Your task to perform on an android device: Add logitech g pro to the cart on bestbuy.com, then select checkout. Image 0: 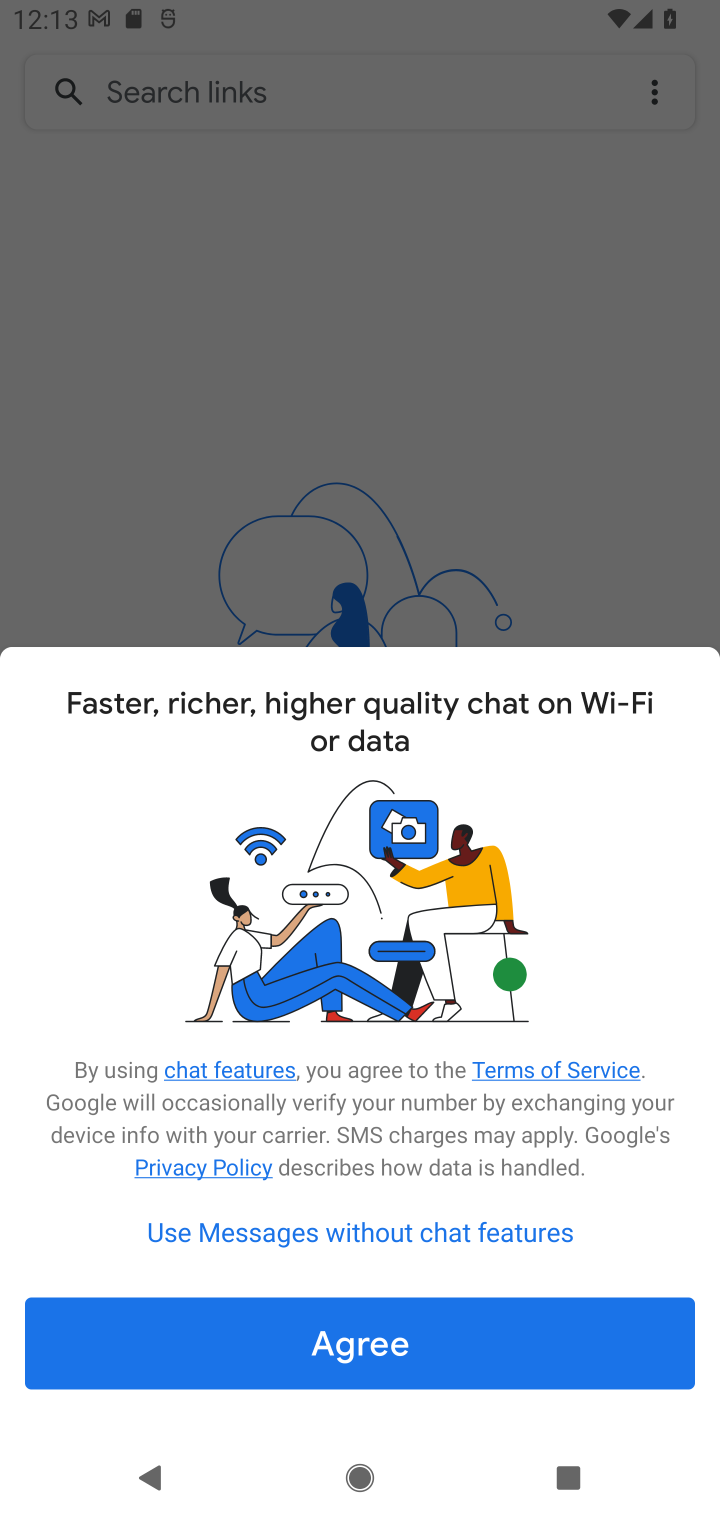
Step 0: press home button
Your task to perform on an android device: Add logitech g pro to the cart on bestbuy.com, then select checkout. Image 1: 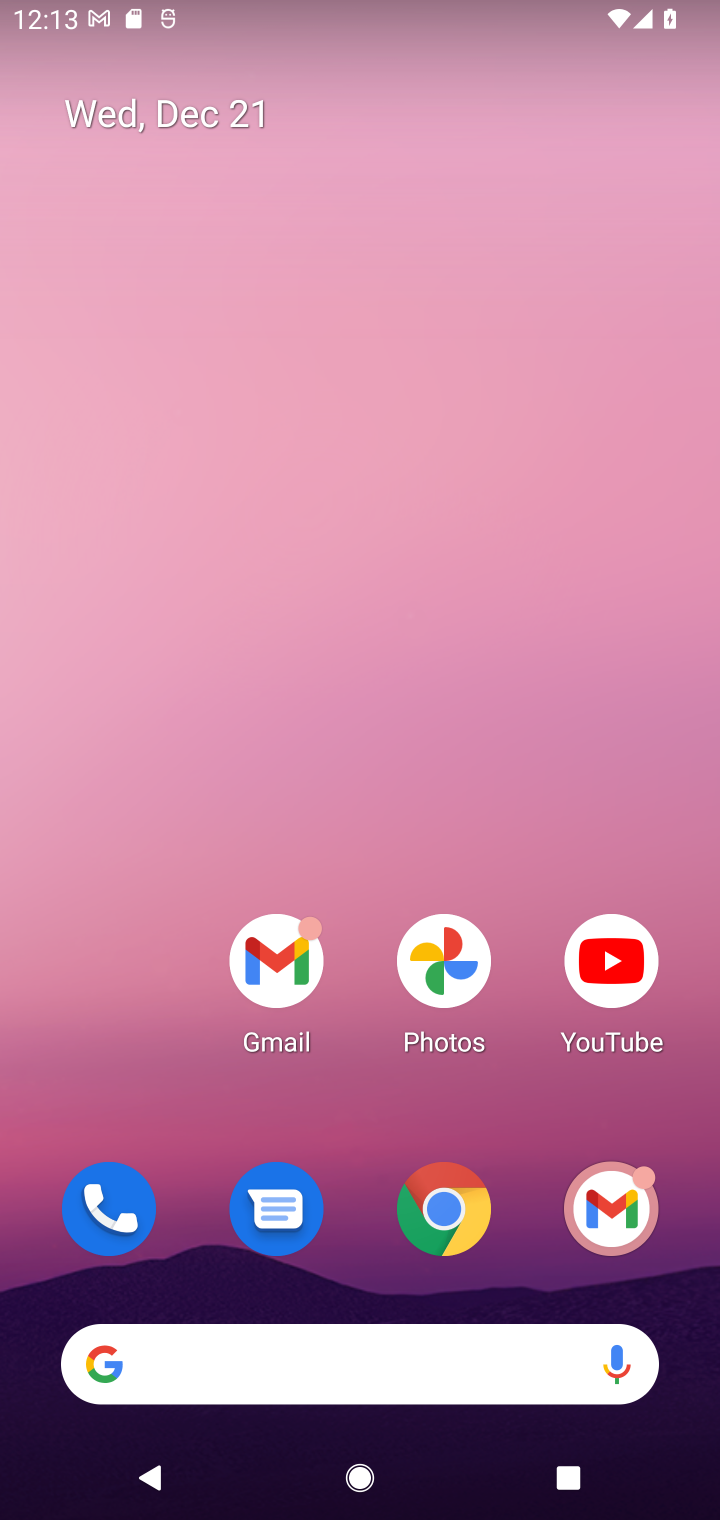
Step 1: click (457, 1213)
Your task to perform on an android device: Add logitech g pro to the cart on bestbuy.com, then select checkout. Image 2: 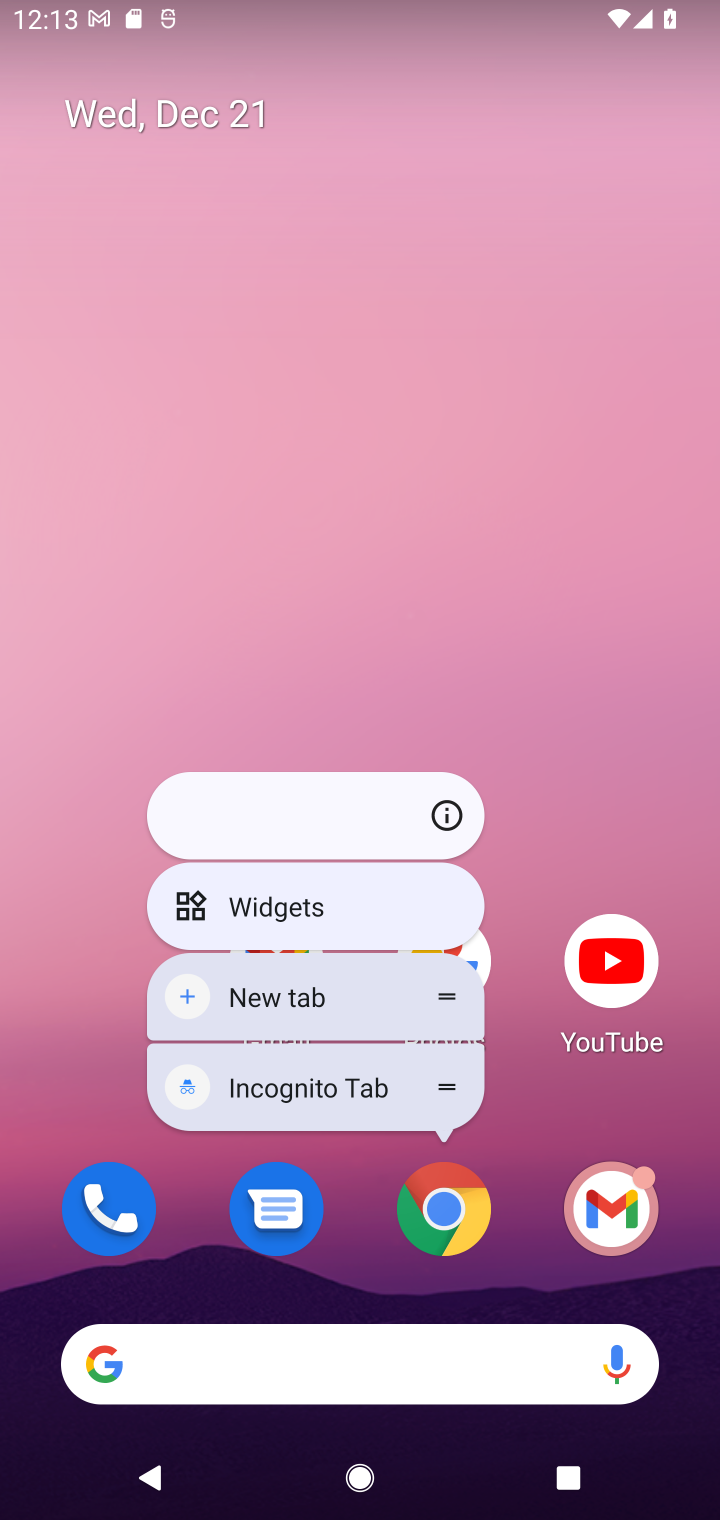
Step 2: click (457, 1213)
Your task to perform on an android device: Add logitech g pro to the cart on bestbuy.com, then select checkout. Image 3: 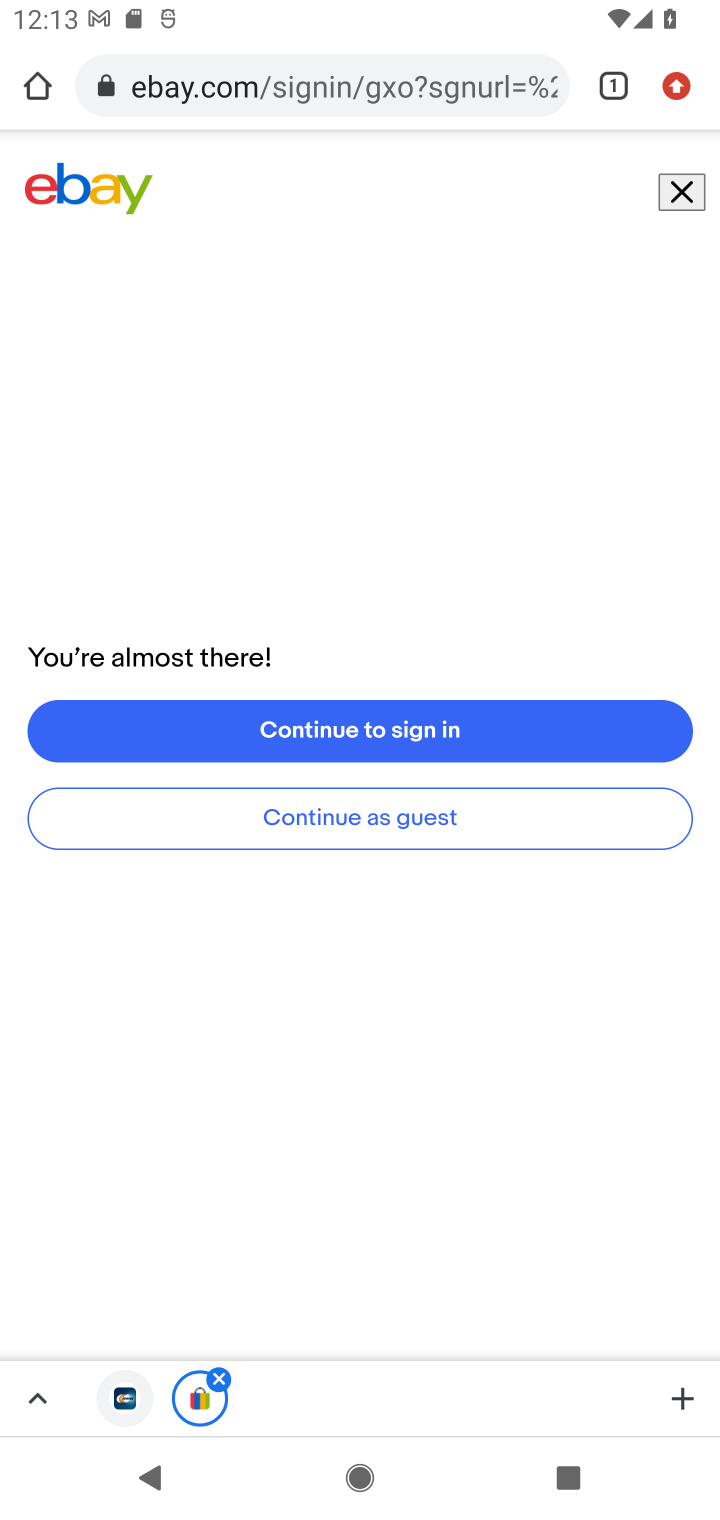
Step 3: click (296, 96)
Your task to perform on an android device: Add logitech g pro to the cart on bestbuy.com, then select checkout. Image 4: 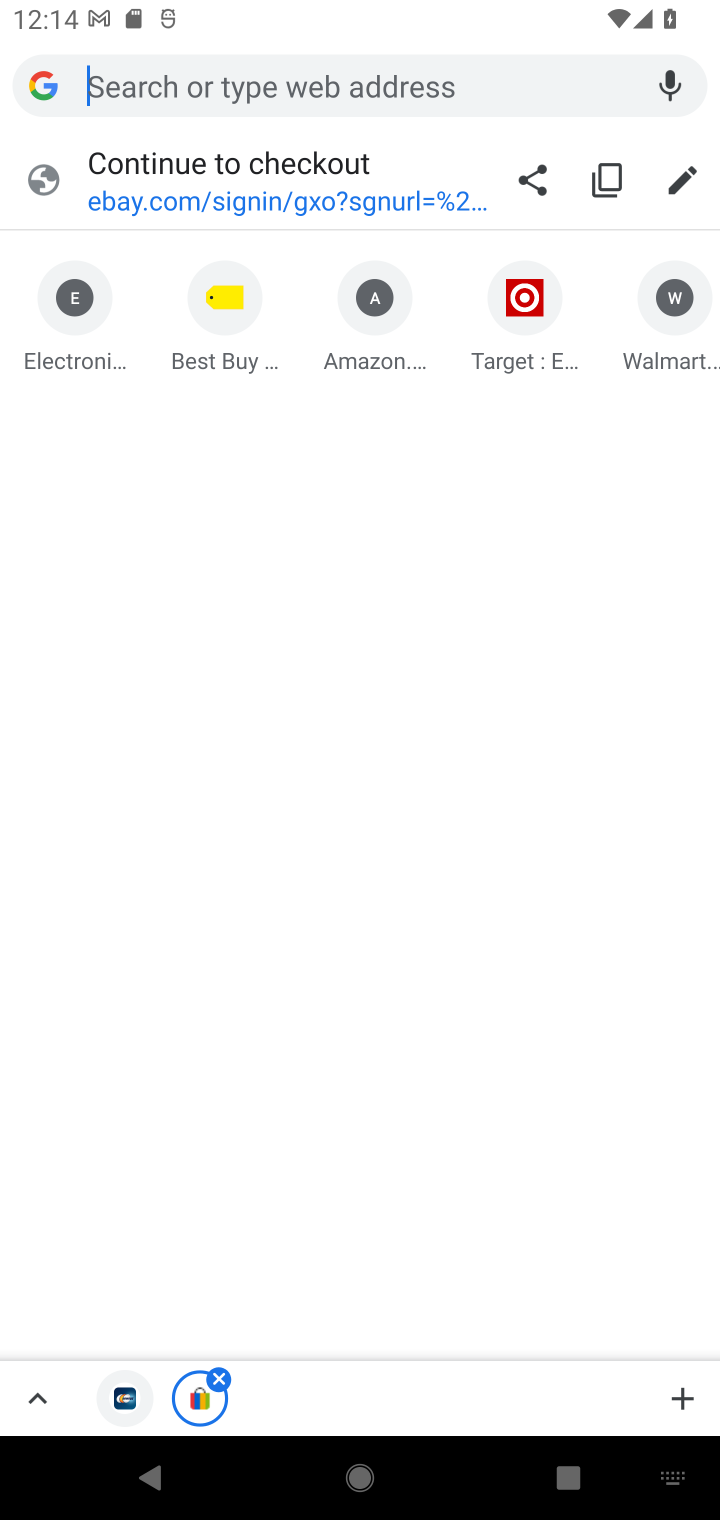
Step 4: click (227, 322)
Your task to perform on an android device: Add logitech g pro to the cart on bestbuy.com, then select checkout. Image 5: 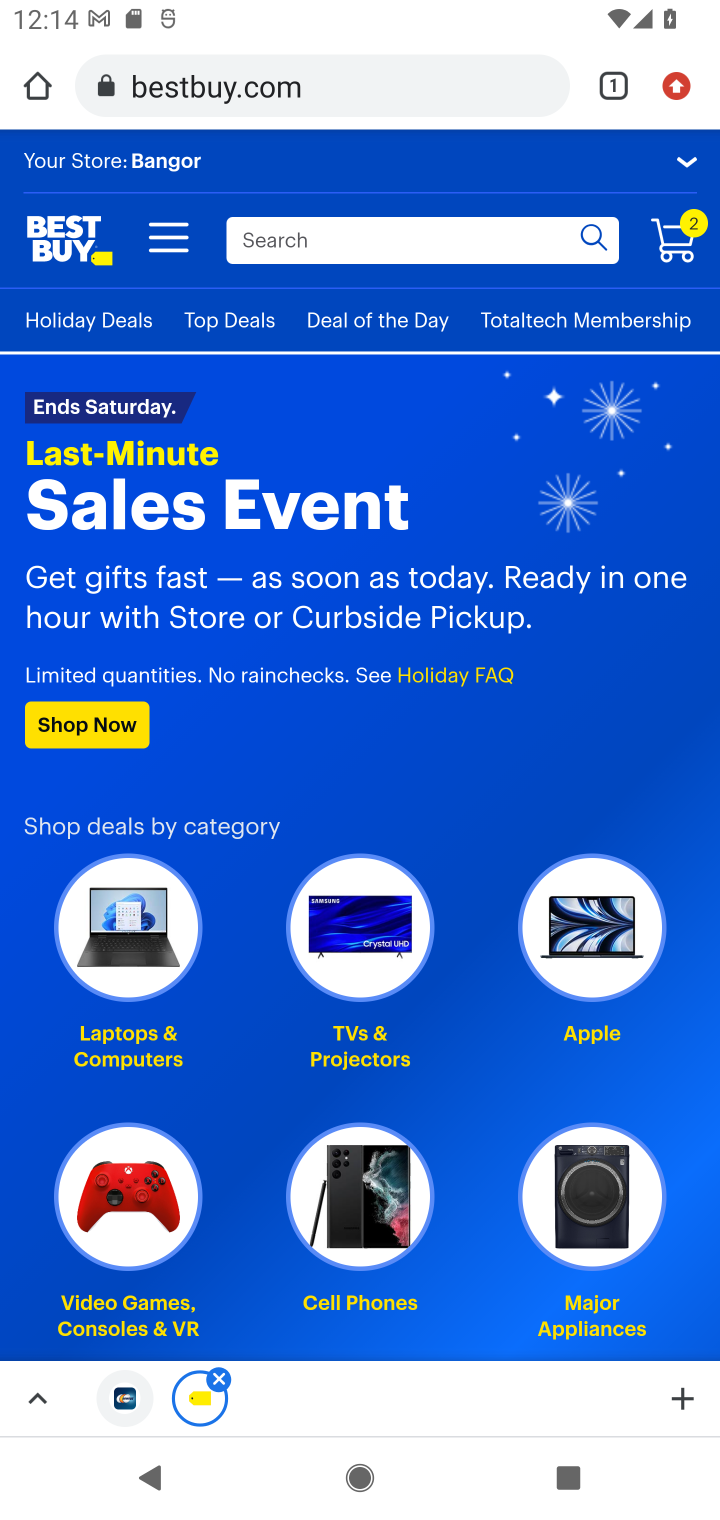
Step 5: click (324, 263)
Your task to perform on an android device: Add logitech g pro to the cart on bestbuy.com, then select checkout. Image 6: 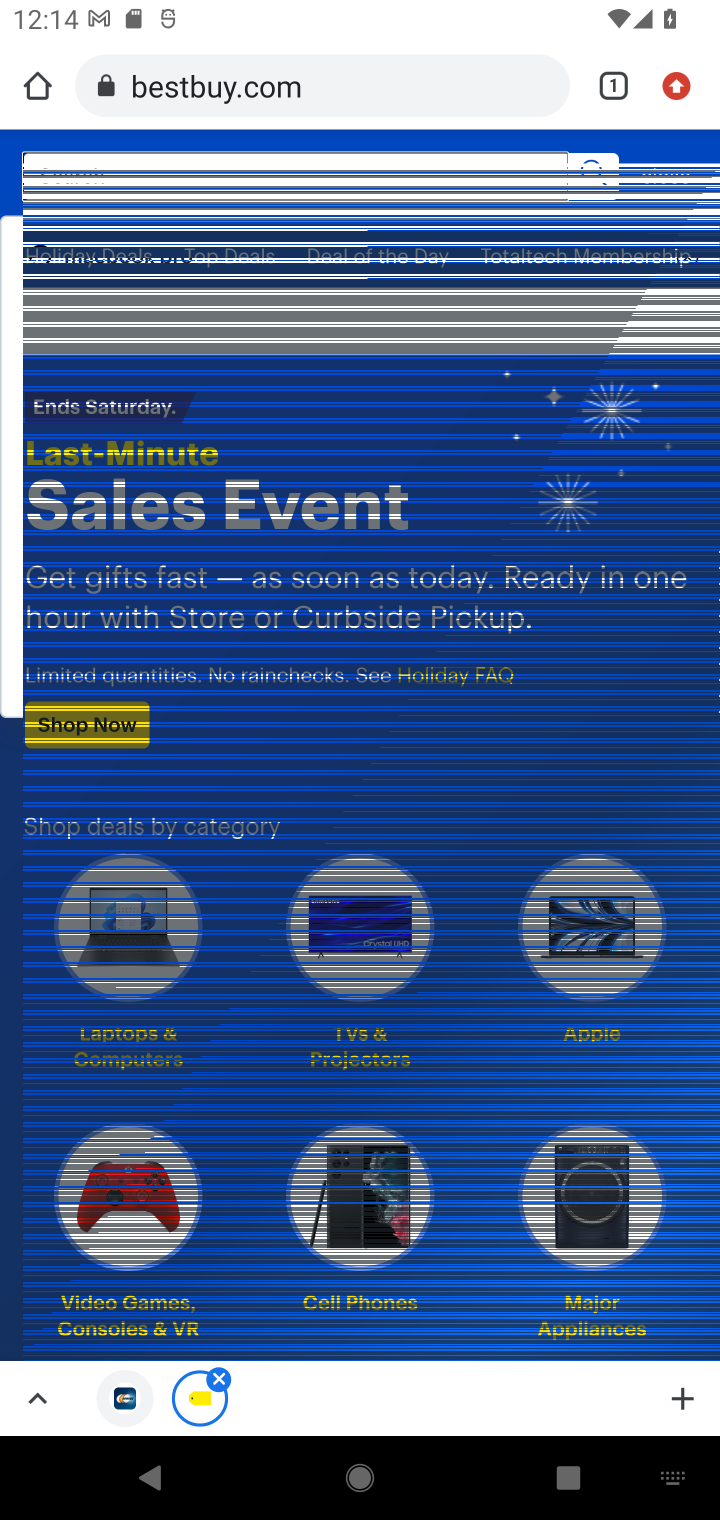
Step 6: type " logitech g pro"
Your task to perform on an android device: Add logitech g pro to the cart on bestbuy.com, then select checkout. Image 7: 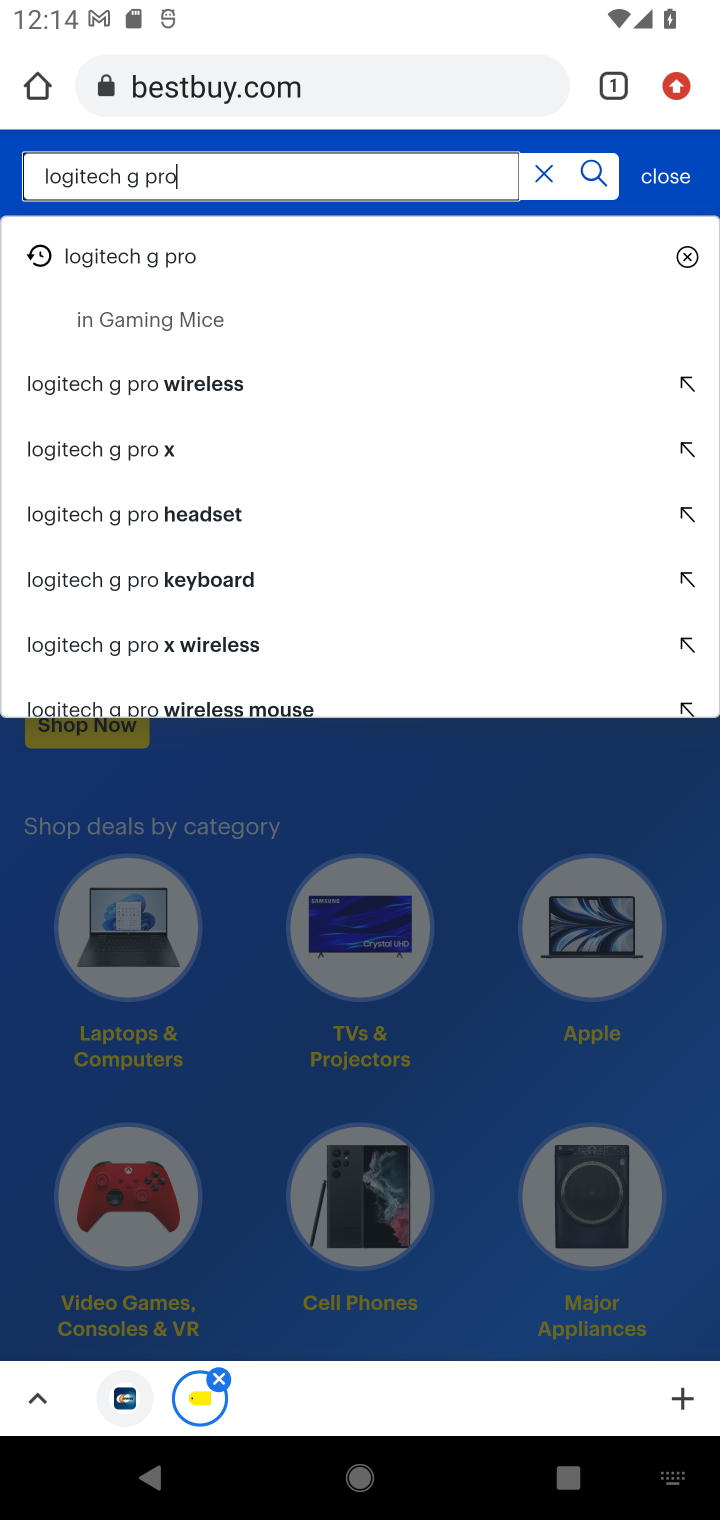
Step 7: click (144, 268)
Your task to perform on an android device: Add logitech g pro to the cart on bestbuy.com, then select checkout. Image 8: 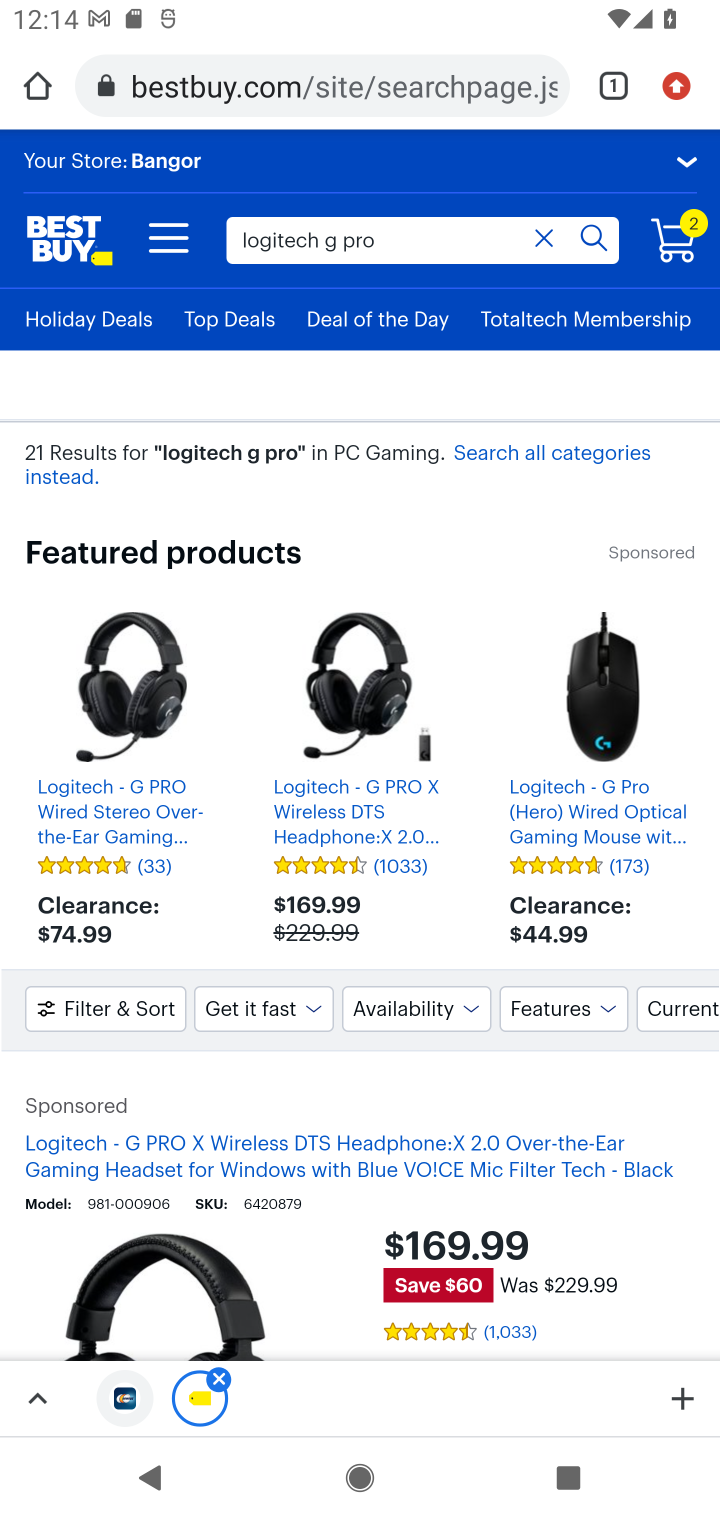
Step 8: drag from (248, 1038) to (266, 551)
Your task to perform on an android device: Add logitech g pro to the cart on bestbuy.com, then select checkout. Image 9: 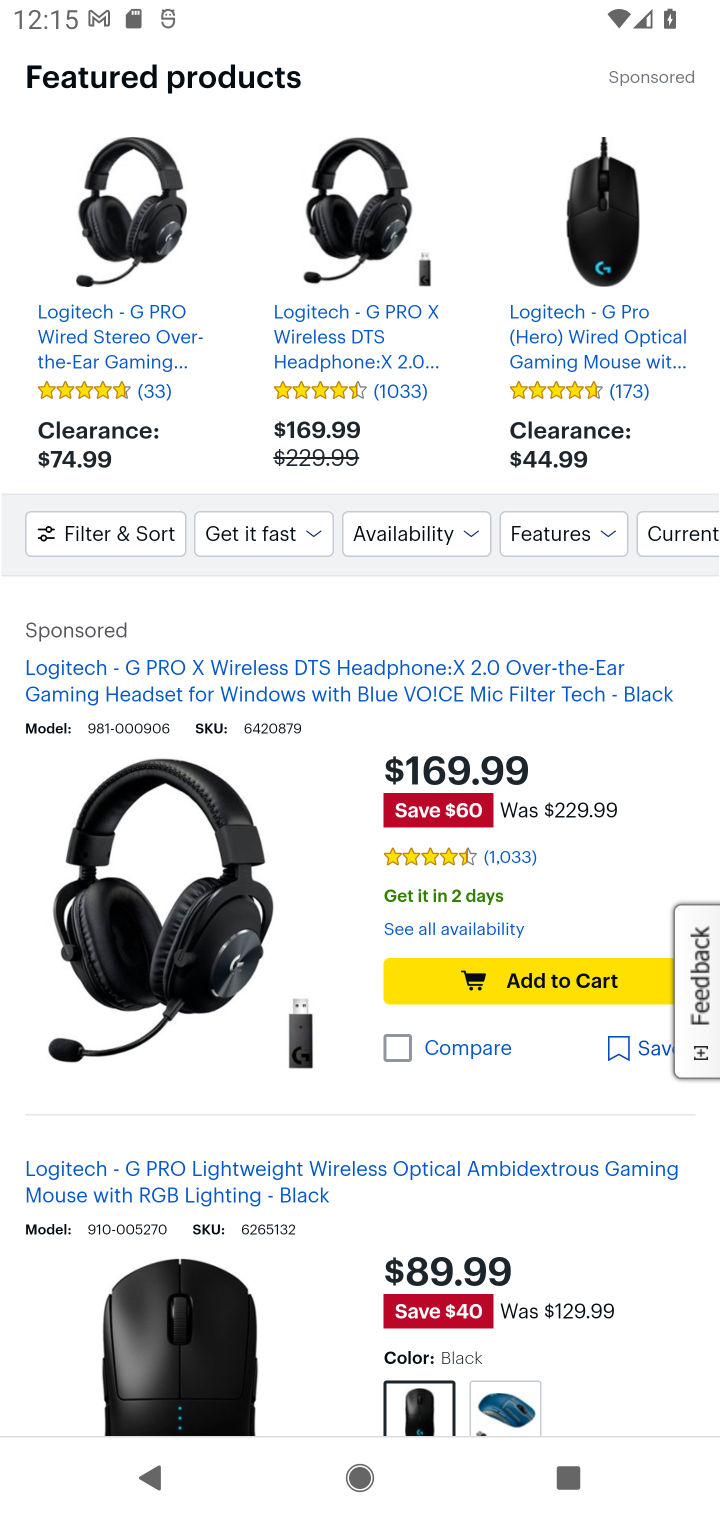
Step 9: click (541, 977)
Your task to perform on an android device: Add logitech g pro to the cart on bestbuy.com, then select checkout. Image 10: 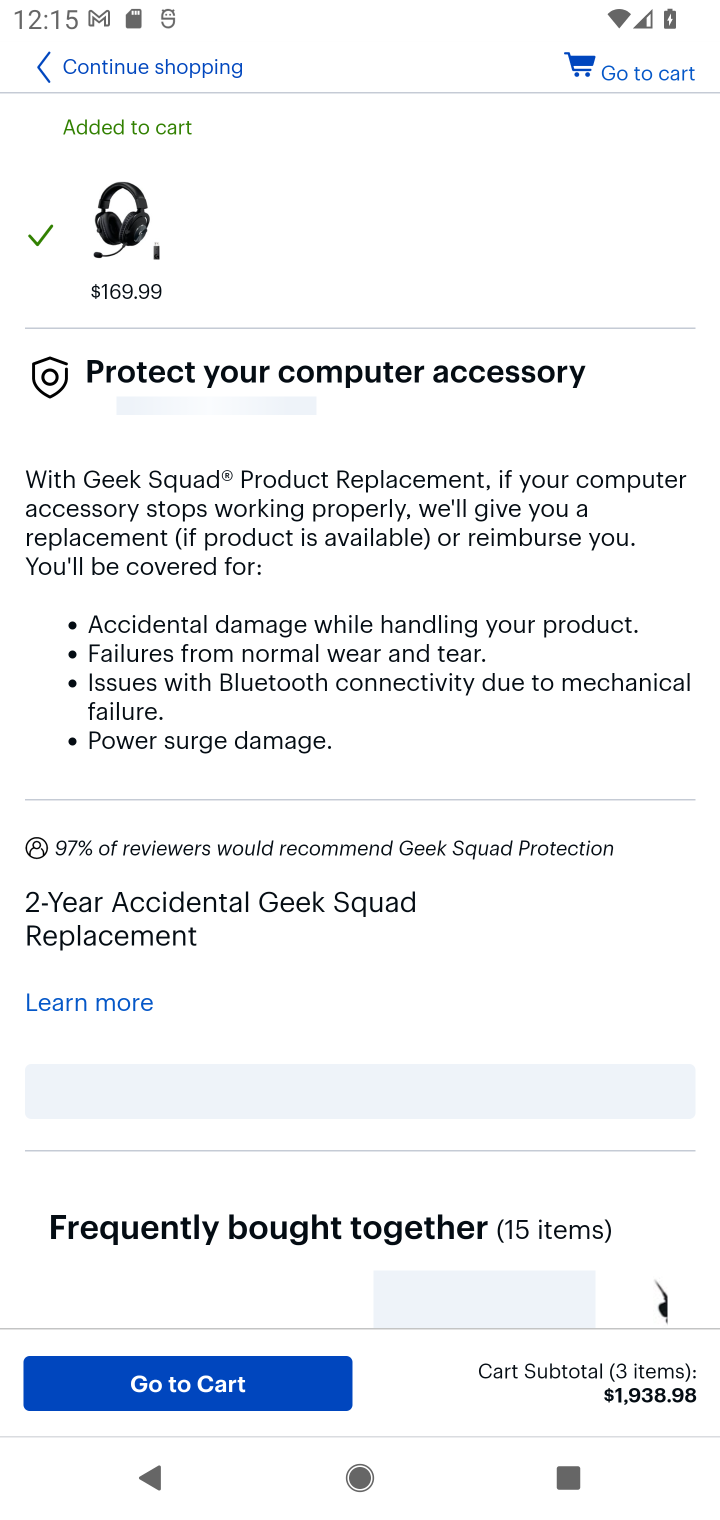
Step 10: click (642, 71)
Your task to perform on an android device: Add logitech g pro to the cart on bestbuy.com, then select checkout. Image 11: 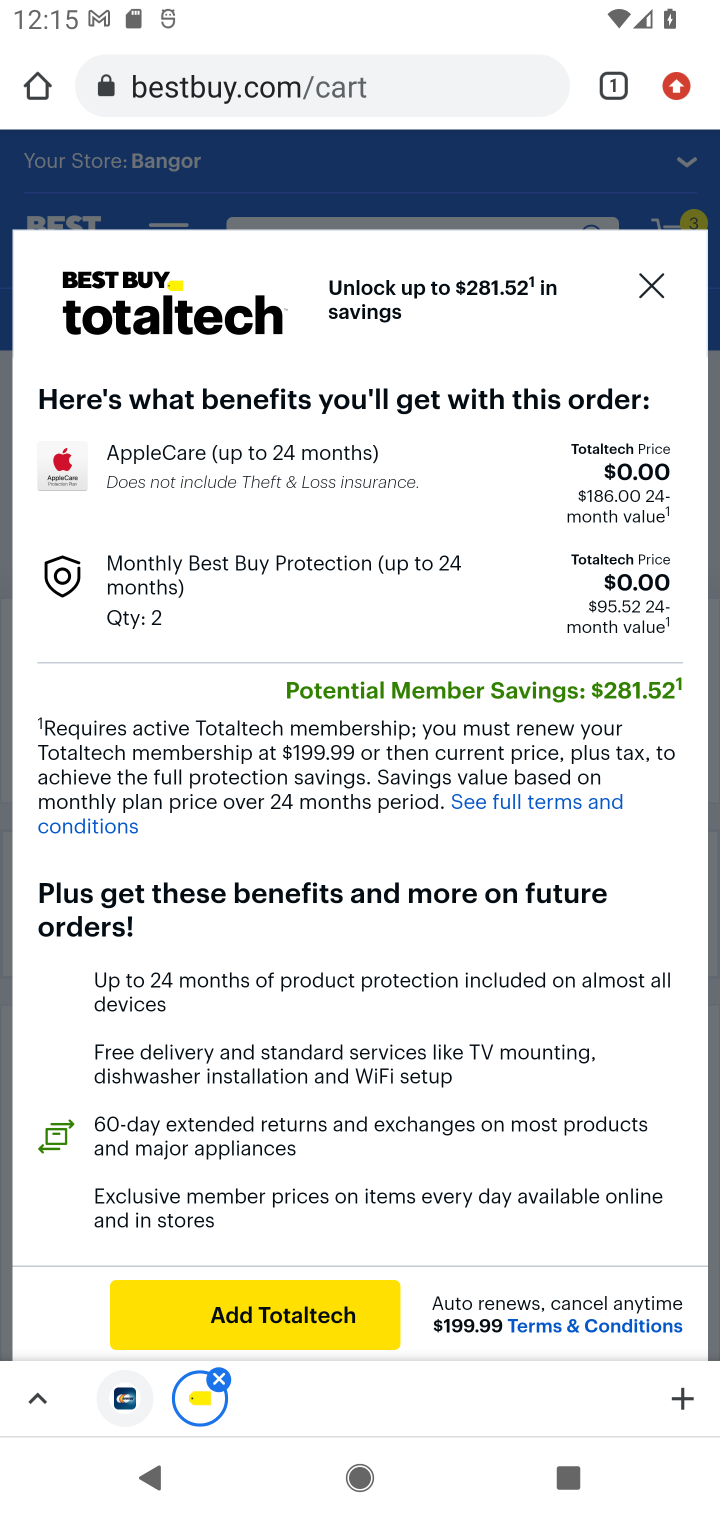
Step 11: click (643, 290)
Your task to perform on an android device: Add logitech g pro to the cart on bestbuy.com, then select checkout. Image 12: 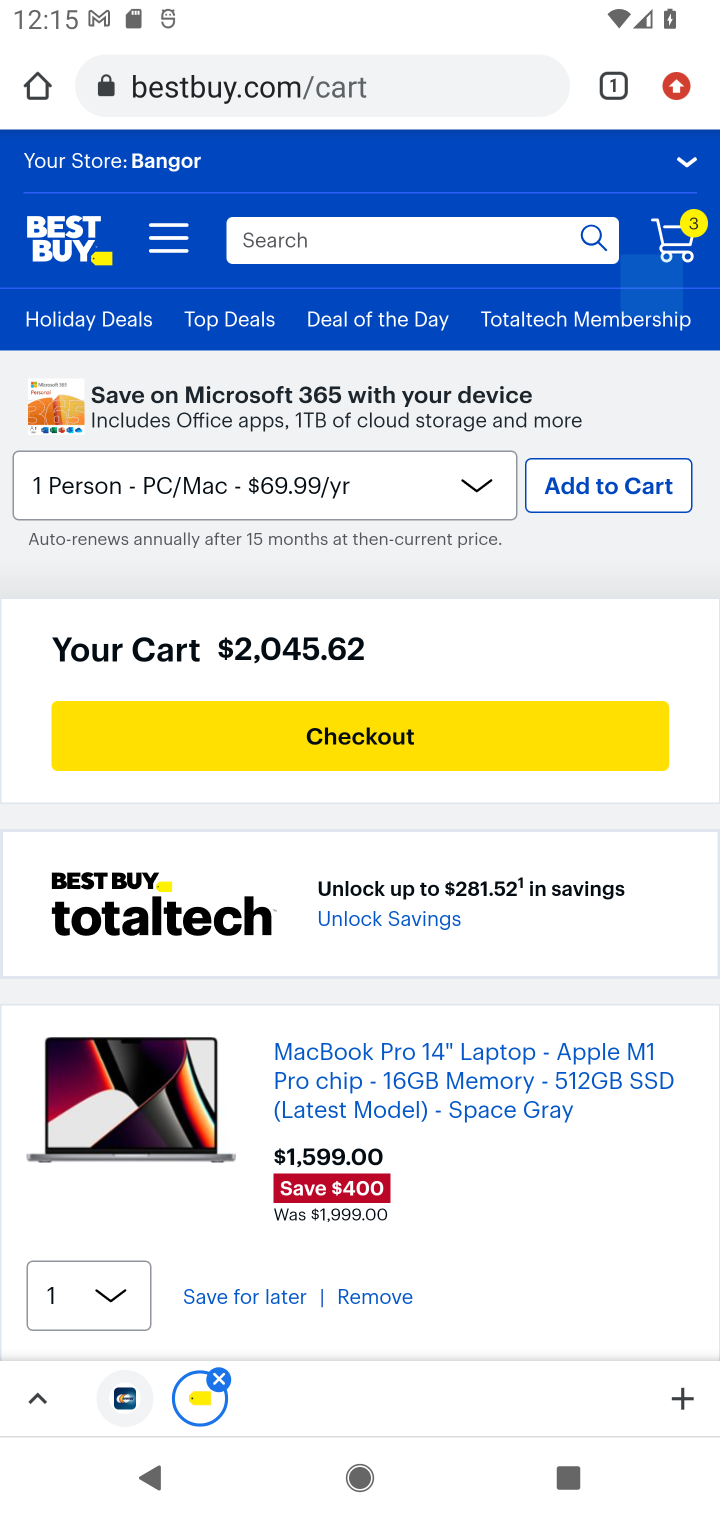
Step 12: click (288, 751)
Your task to perform on an android device: Add logitech g pro to the cart on bestbuy.com, then select checkout. Image 13: 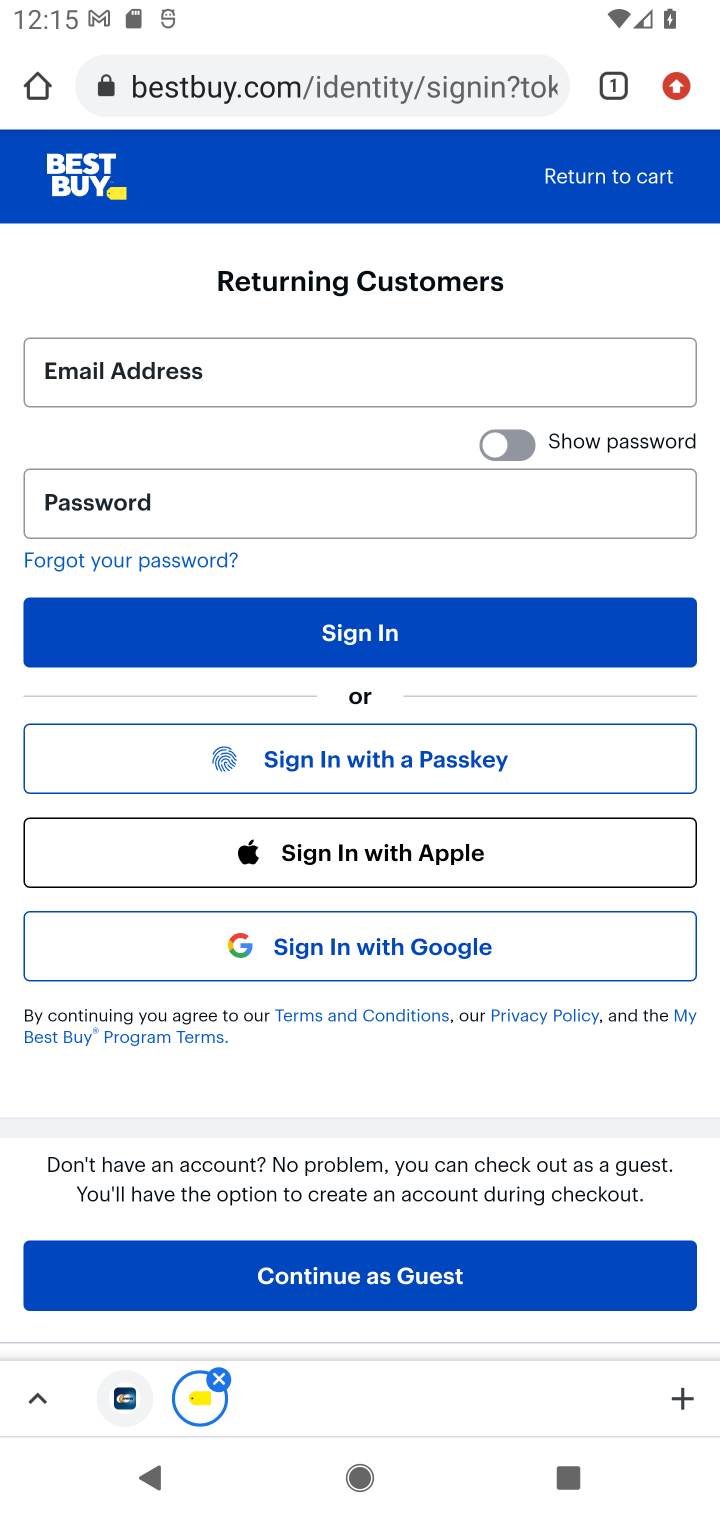
Step 13: task complete